Your task to perform on an android device: set an alarm Image 0: 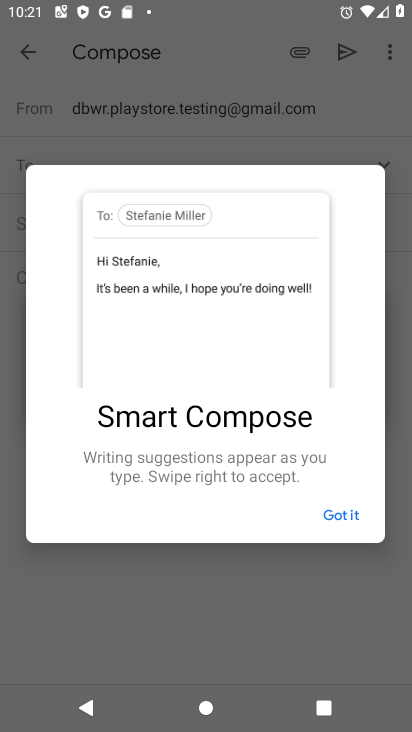
Step 0: press home button
Your task to perform on an android device: set an alarm Image 1: 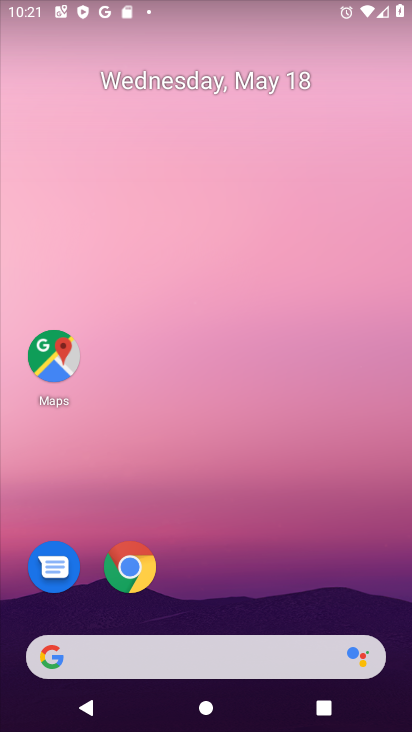
Step 1: drag from (188, 647) to (65, 24)
Your task to perform on an android device: set an alarm Image 2: 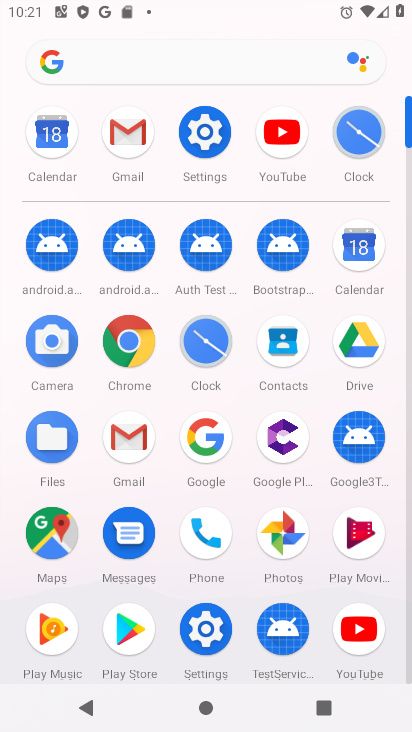
Step 2: click (204, 348)
Your task to perform on an android device: set an alarm Image 3: 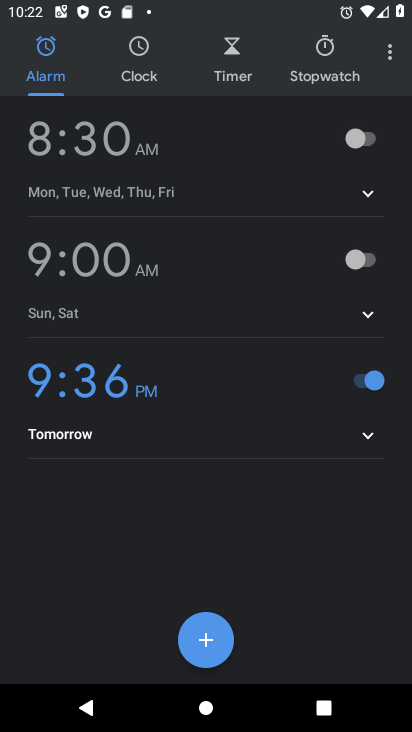
Step 3: click (215, 639)
Your task to perform on an android device: set an alarm Image 4: 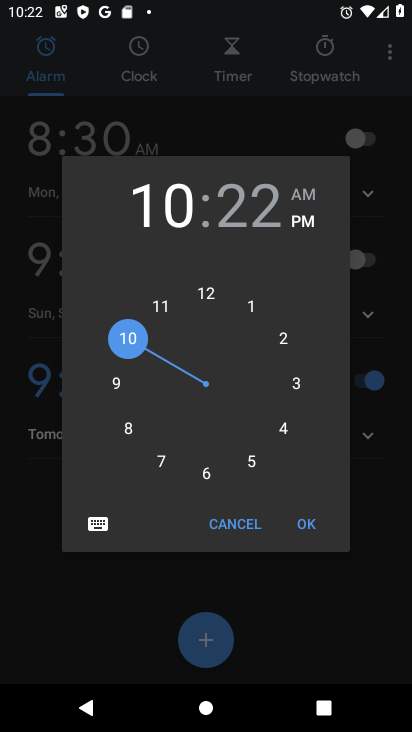
Step 4: click (210, 282)
Your task to perform on an android device: set an alarm Image 5: 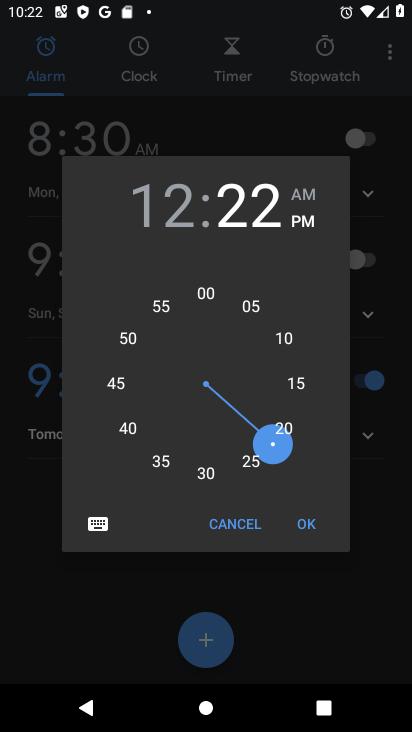
Step 5: click (296, 530)
Your task to perform on an android device: set an alarm Image 6: 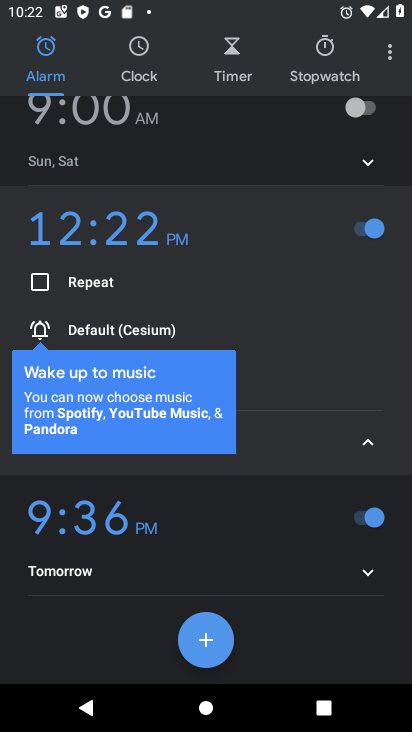
Step 6: task complete